Your task to perform on an android device: Open CNN.com Image 0: 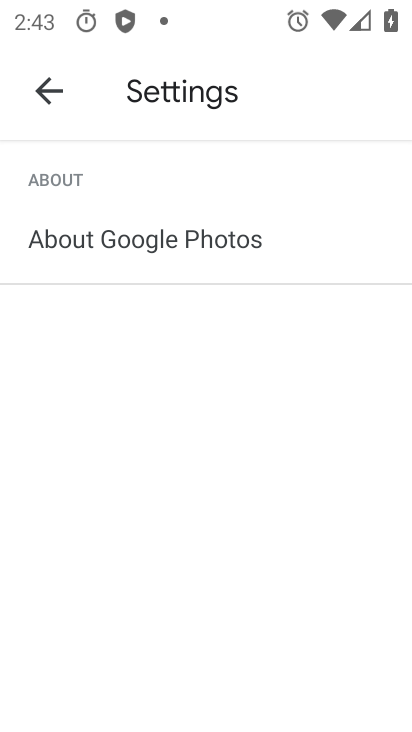
Step 0: press home button
Your task to perform on an android device: Open CNN.com Image 1: 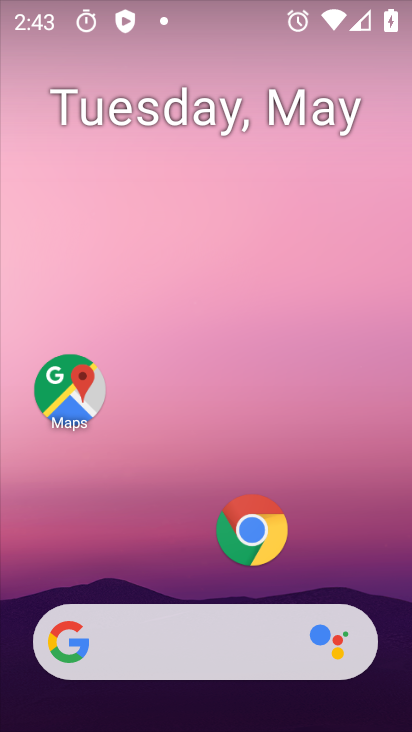
Step 1: click (246, 529)
Your task to perform on an android device: Open CNN.com Image 2: 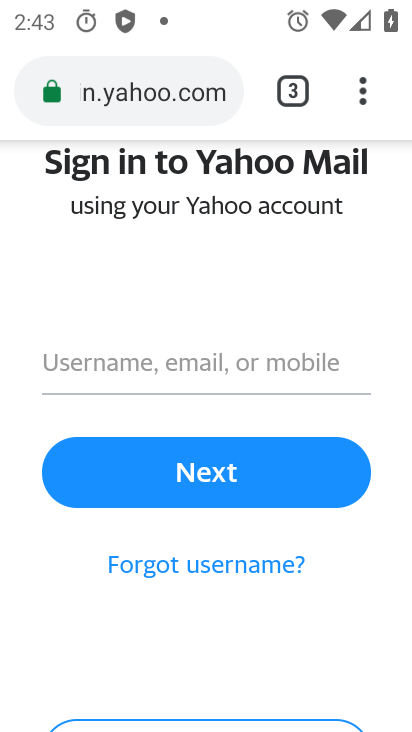
Step 2: click (295, 97)
Your task to perform on an android device: Open CNN.com Image 3: 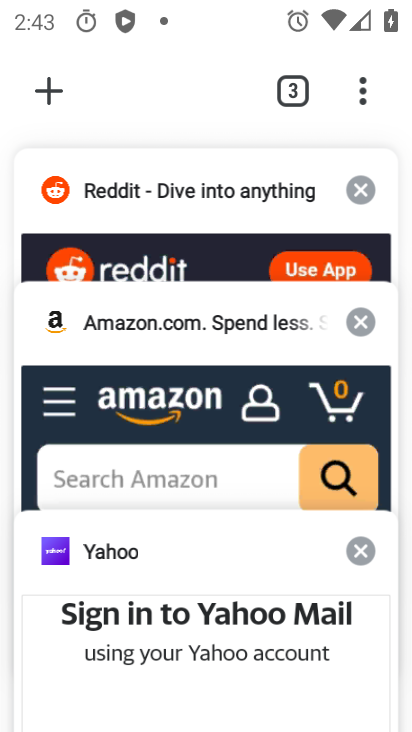
Step 3: click (59, 79)
Your task to perform on an android device: Open CNN.com Image 4: 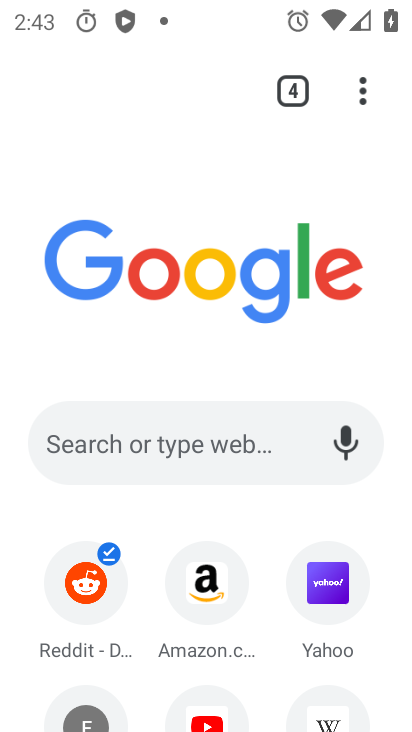
Step 4: click (189, 459)
Your task to perform on an android device: Open CNN.com Image 5: 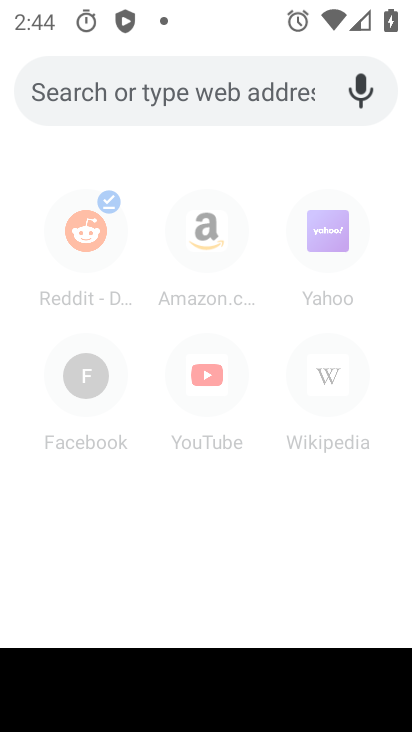
Step 5: type "cnn"
Your task to perform on an android device: Open CNN.com Image 6: 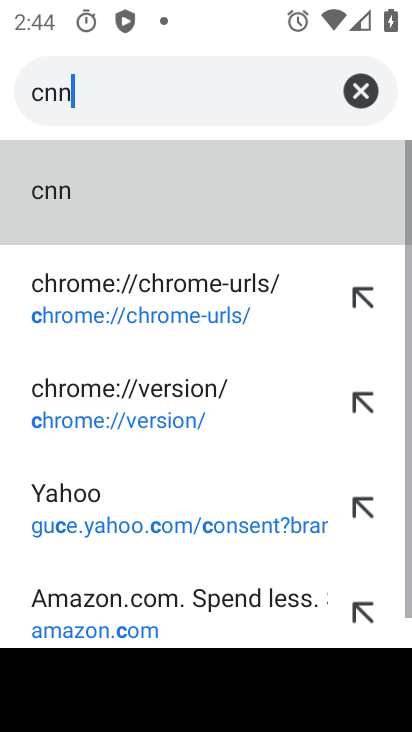
Step 6: type ""
Your task to perform on an android device: Open CNN.com Image 7: 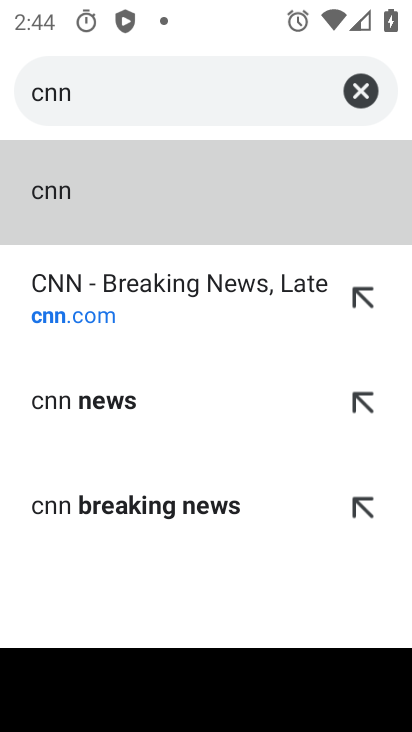
Step 7: click (134, 325)
Your task to perform on an android device: Open CNN.com Image 8: 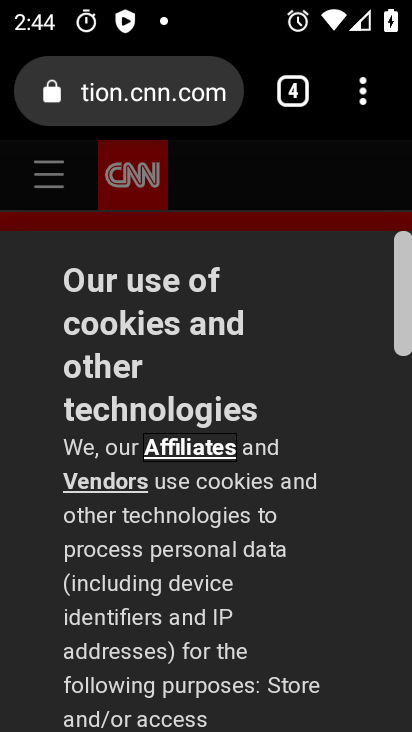
Step 8: task complete